Your task to perform on an android device: Open sound settings Image 0: 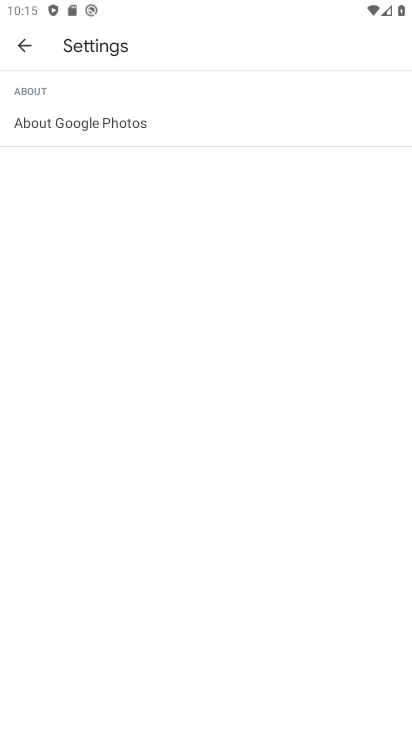
Step 0: press home button
Your task to perform on an android device: Open sound settings Image 1: 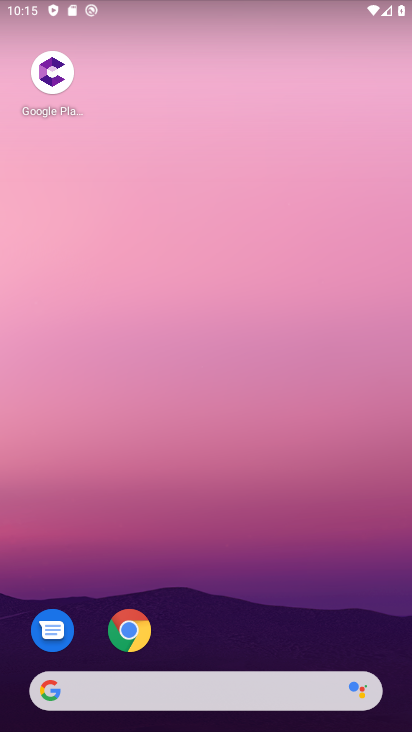
Step 1: drag from (207, 728) to (197, 133)
Your task to perform on an android device: Open sound settings Image 2: 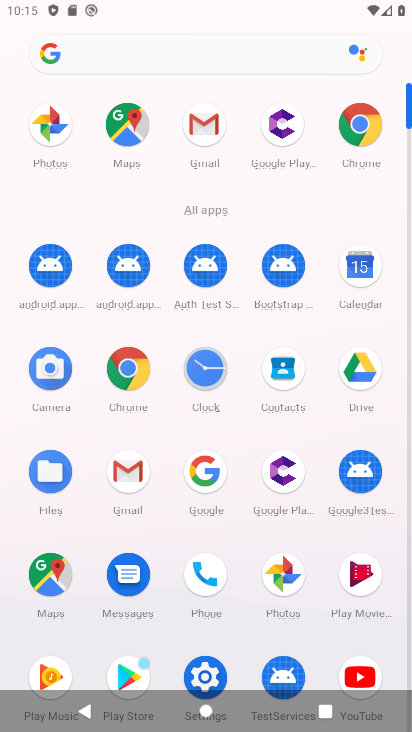
Step 2: click (200, 669)
Your task to perform on an android device: Open sound settings Image 3: 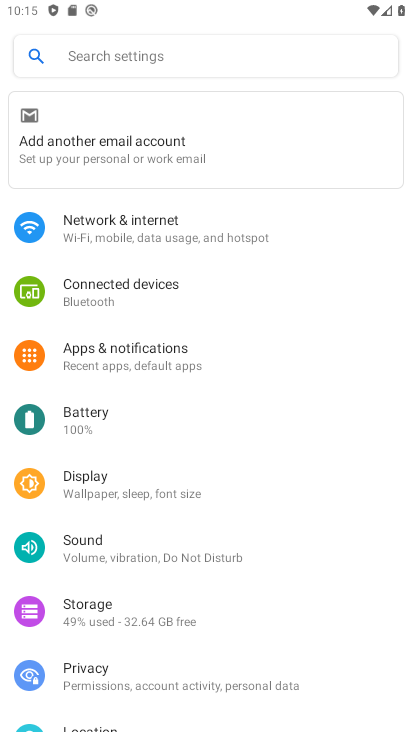
Step 3: click (81, 540)
Your task to perform on an android device: Open sound settings Image 4: 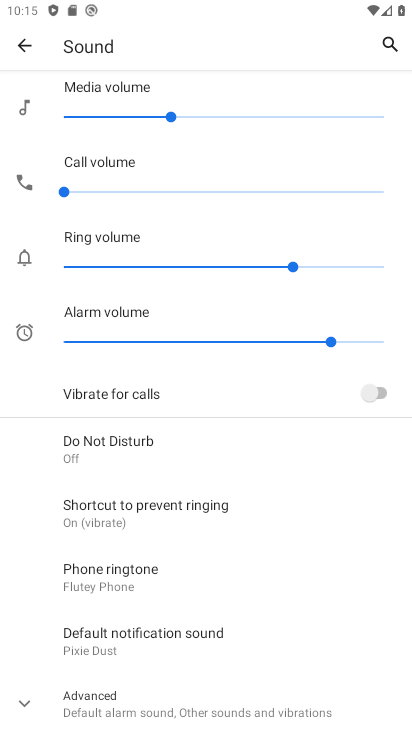
Step 4: task complete